Your task to perform on an android device: What's on my calendar tomorrow? Image 0: 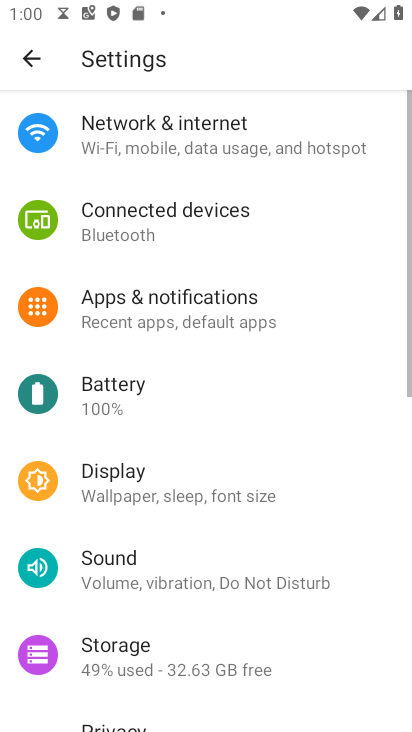
Step 0: press home button
Your task to perform on an android device: What's on my calendar tomorrow? Image 1: 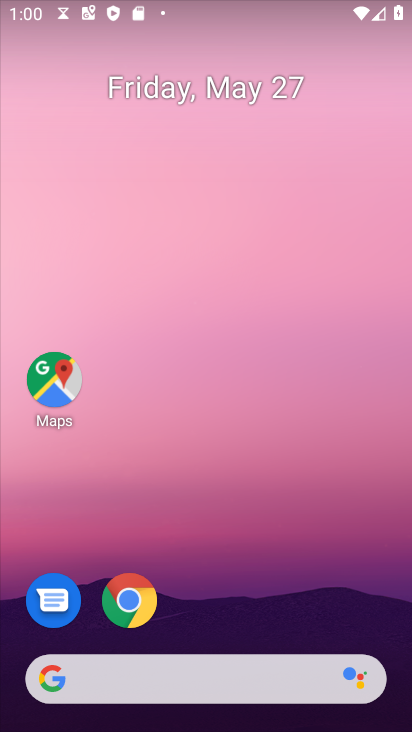
Step 1: drag from (268, 441) to (269, 77)
Your task to perform on an android device: What's on my calendar tomorrow? Image 2: 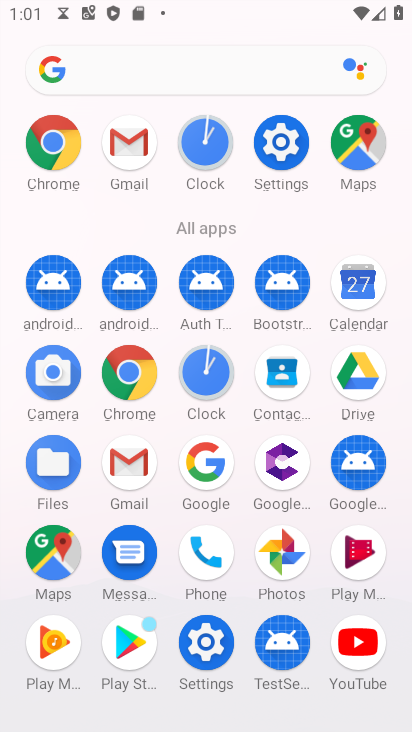
Step 2: click (353, 293)
Your task to perform on an android device: What's on my calendar tomorrow? Image 3: 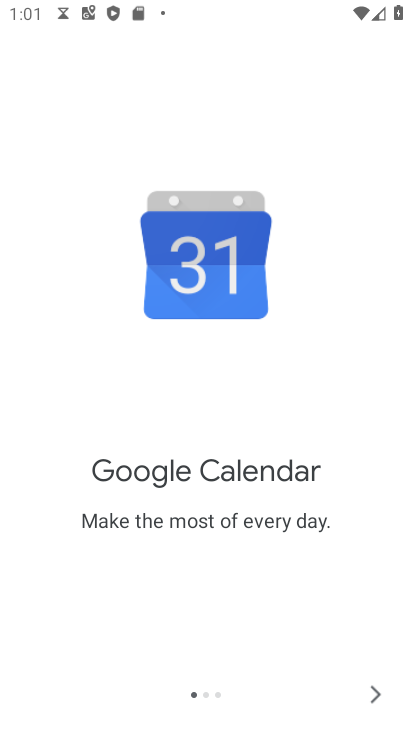
Step 3: click (355, 668)
Your task to perform on an android device: What's on my calendar tomorrow? Image 4: 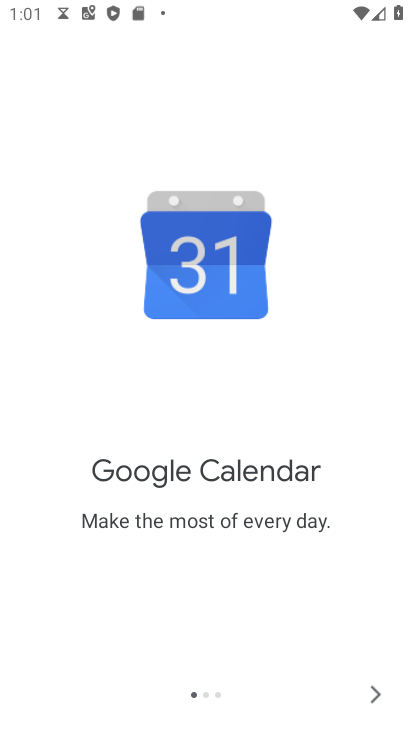
Step 4: click (355, 668)
Your task to perform on an android device: What's on my calendar tomorrow? Image 5: 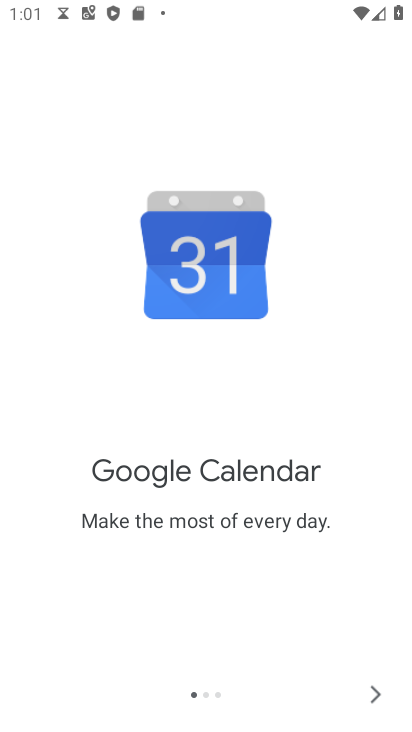
Step 5: click (371, 688)
Your task to perform on an android device: What's on my calendar tomorrow? Image 6: 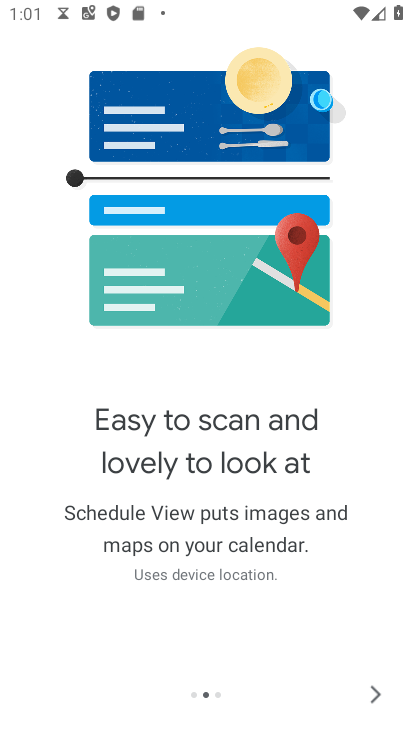
Step 6: click (375, 684)
Your task to perform on an android device: What's on my calendar tomorrow? Image 7: 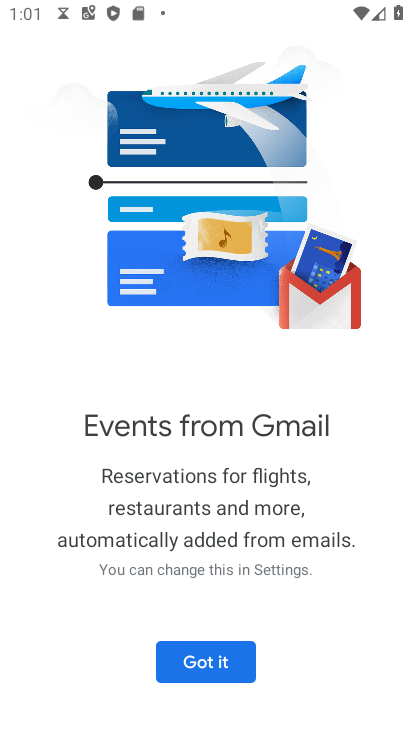
Step 7: click (226, 663)
Your task to perform on an android device: What's on my calendar tomorrow? Image 8: 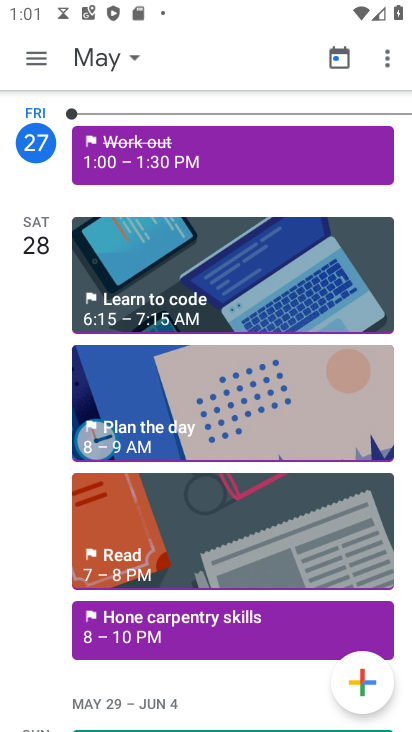
Step 8: task complete